Your task to perform on an android device: Go to battery settings Image 0: 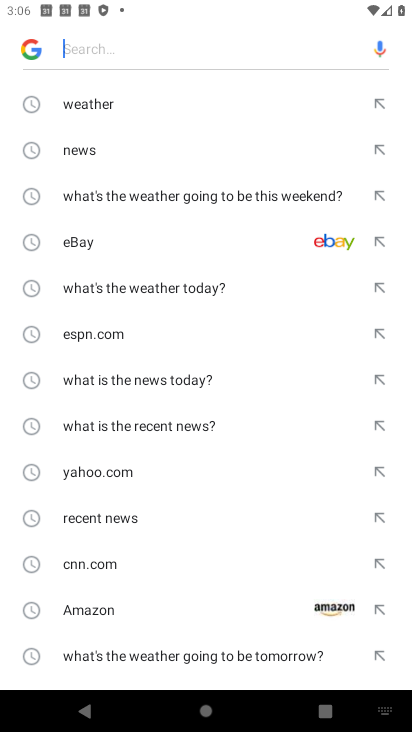
Step 0: press home button
Your task to perform on an android device: Go to battery settings Image 1: 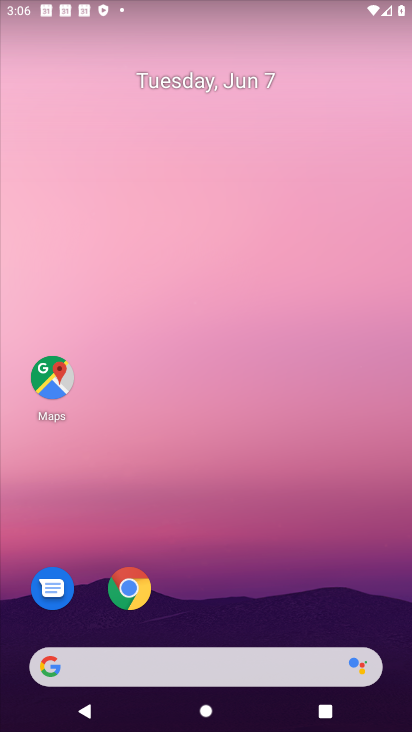
Step 1: drag from (296, 566) to (256, 19)
Your task to perform on an android device: Go to battery settings Image 2: 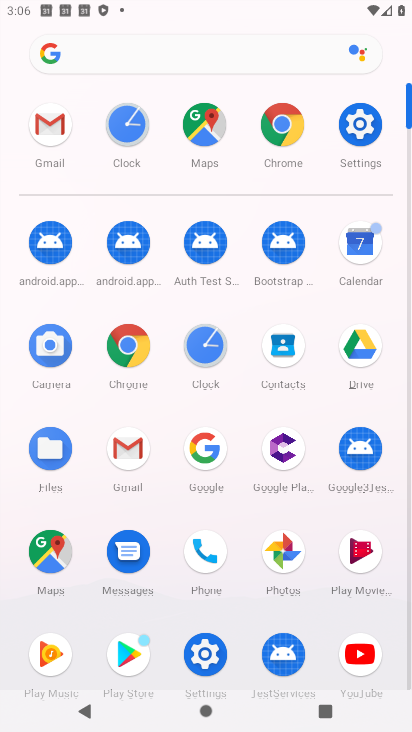
Step 2: click (345, 127)
Your task to perform on an android device: Go to battery settings Image 3: 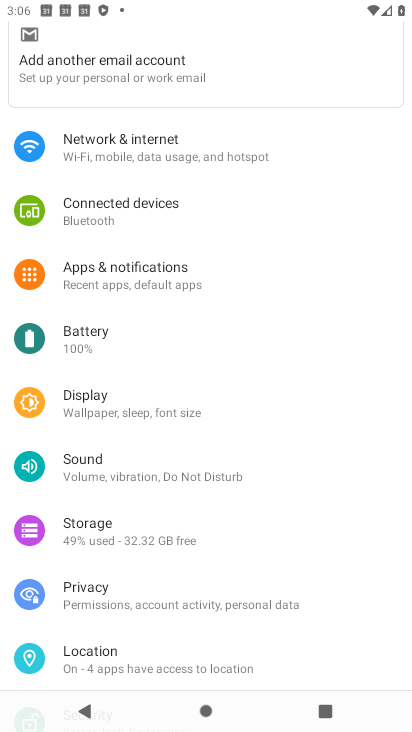
Step 3: click (156, 350)
Your task to perform on an android device: Go to battery settings Image 4: 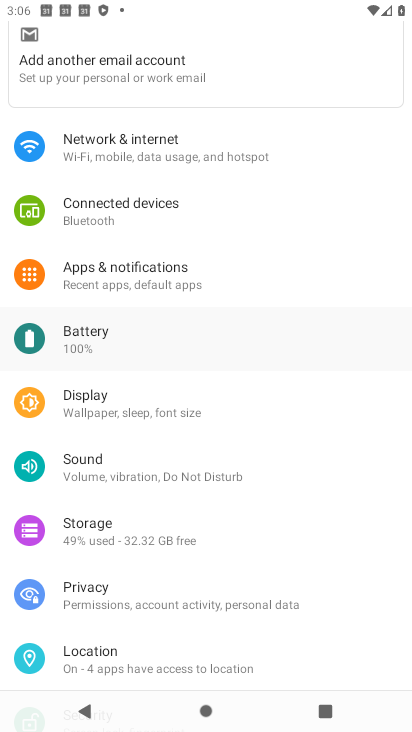
Step 4: task complete